Your task to perform on an android device: check android version Image 0: 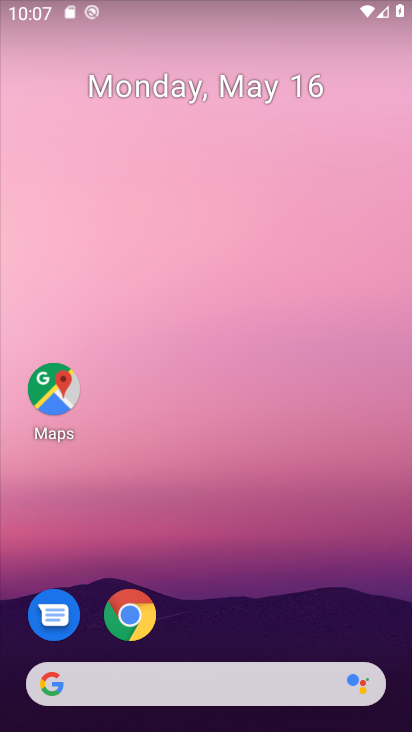
Step 0: drag from (235, 513) to (221, 9)
Your task to perform on an android device: check android version Image 1: 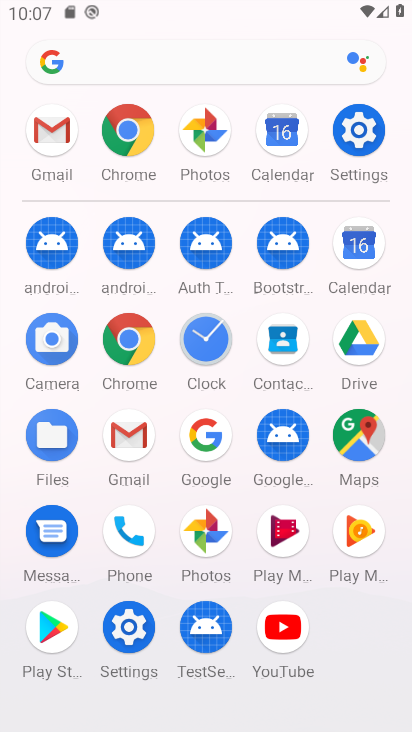
Step 1: drag from (9, 454) to (17, 179)
Your task to perform on an android device: check android version Image 2: 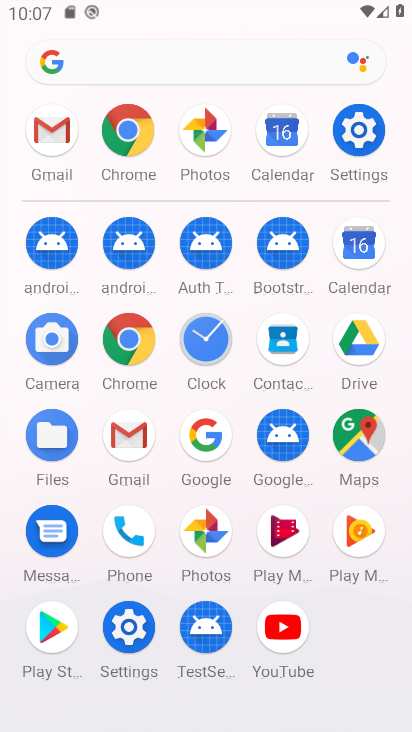
Step 2: drag from (8, 553) to (6, 281)
Your task to perform on an android device: check android version Image 3: 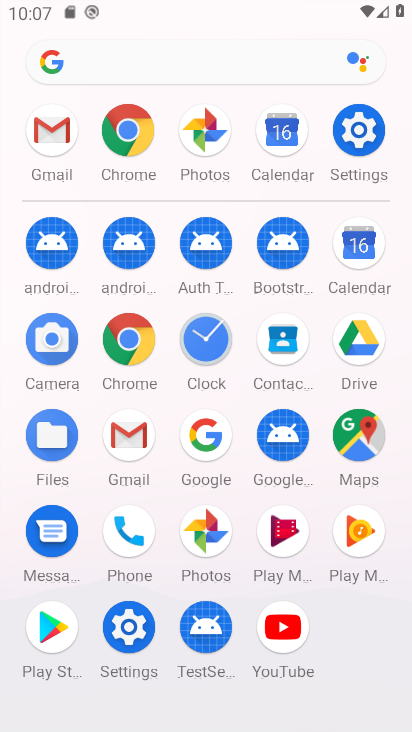
Step 3: click (125, 624)
Your task to perform on an android device: check android version Image 4: 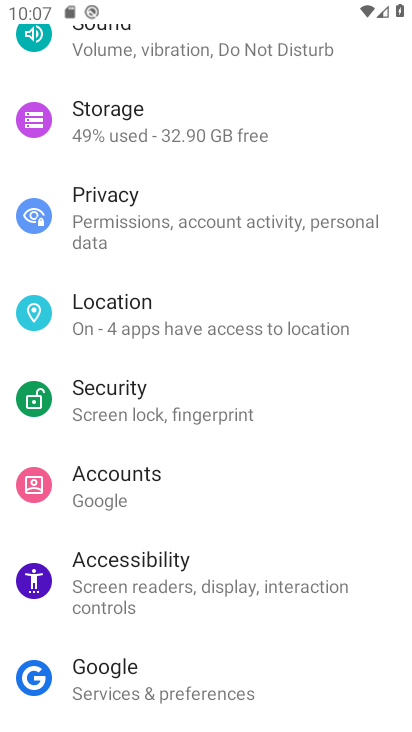
Step 4: drag from (268, 591) to (267, 125)
Your task to perform on an android device: check android version Image 5: 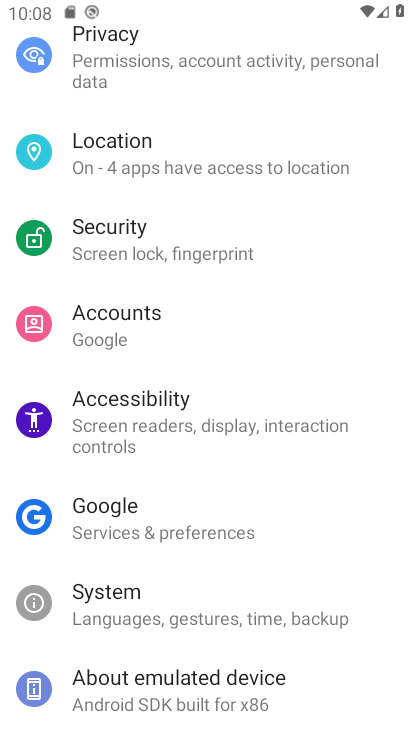
Step 5: drag from (241, 637) to (267, 176)
Your task to perform on an android device: check android version Image 6: 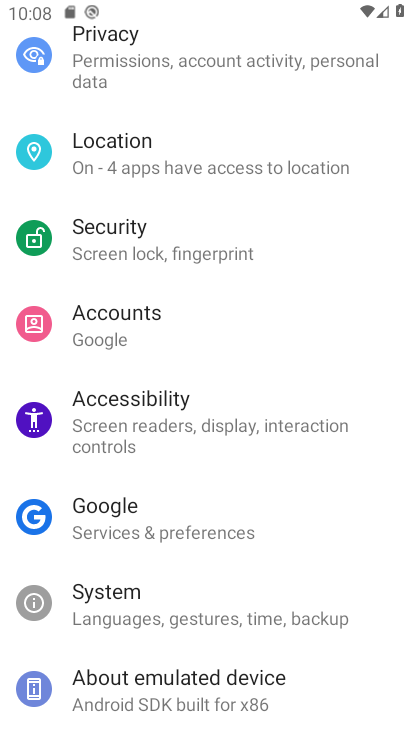
Step 6: click (207, 702)
Your task to perform on an android device: check android version Image 7: 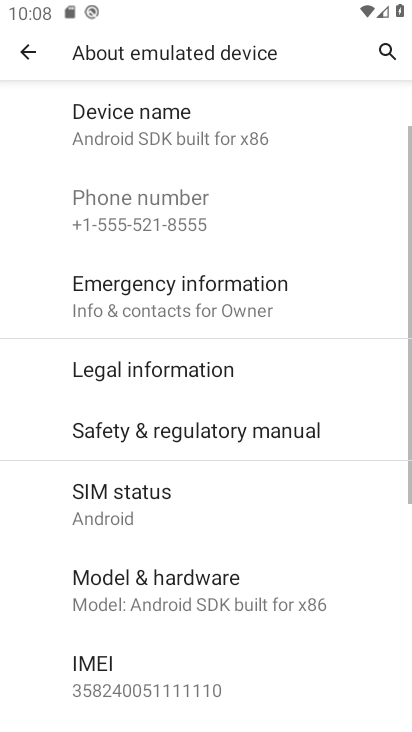
Step 7: task complete